Your task to perform on an android device: create a new album in the google photos Image 0: 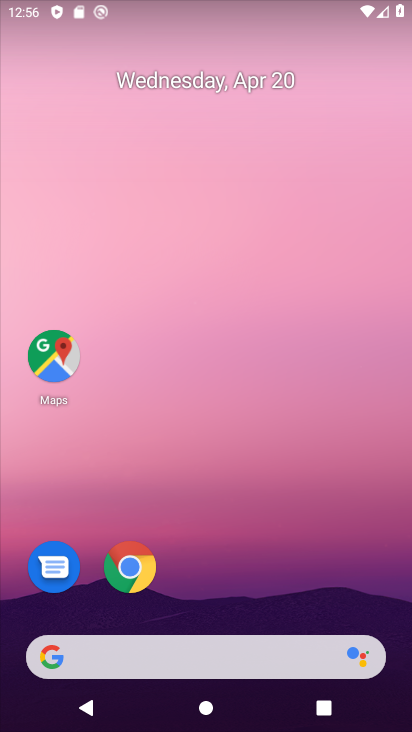
Step 0: drag from (310, 591) to (342, 116)
Your task to perform on an android device: create a new album in the google photos Image 1: 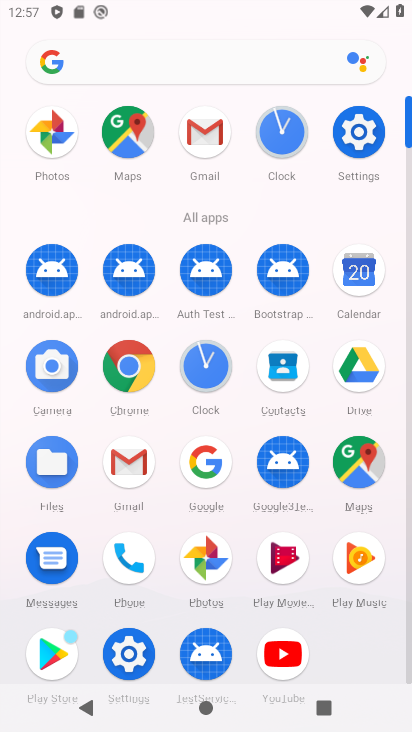
Step 1: click (208, 554)
Your task to perform on an android device: create a new album in the google photos Image 2: 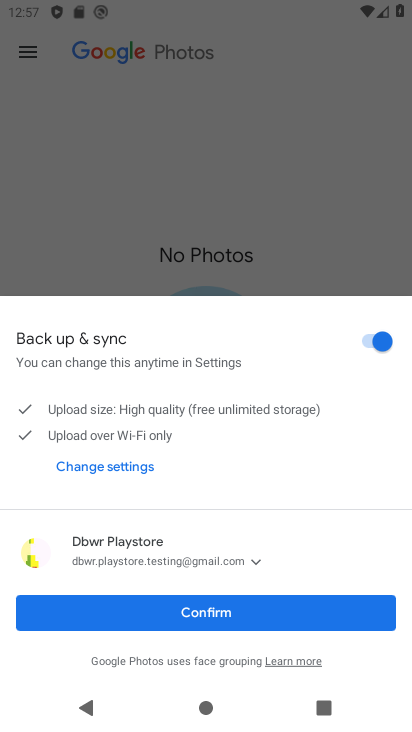
Step 2: click (241, 605)
Your task to perform on an android device: create a new album in the google photos Image 3: 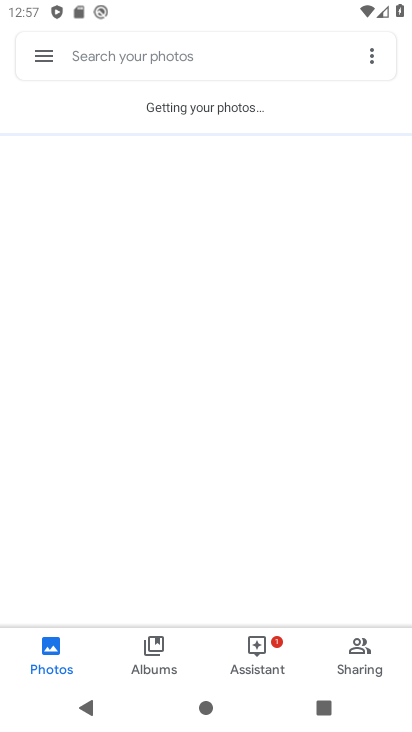
Step 3: click (49, 636)
Your task to perform on an android device: create a new album in the google photos Image 4: 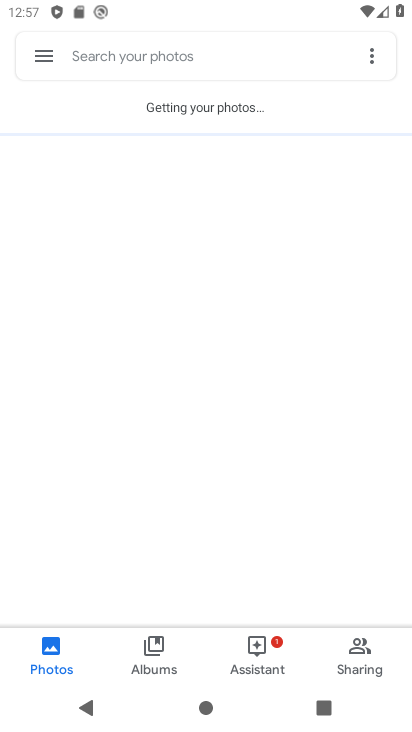
Step 4: click (54, 184)
Your task to perform on an android device: create a new album in the google photos Image 5: 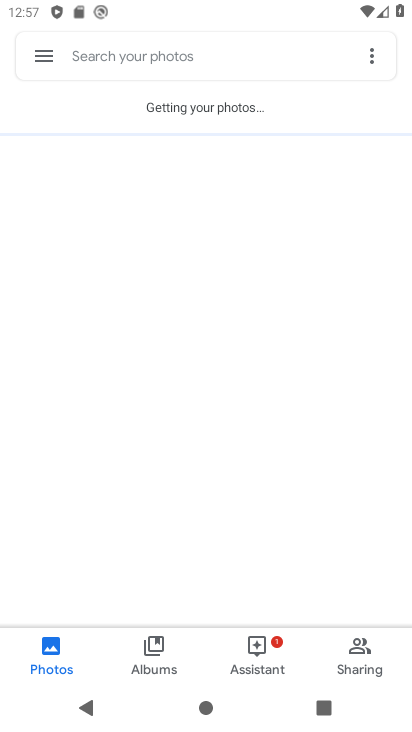
Step 5: click (54, 184)
Your task to perform on an android device: create a new album in the google photos Image 6: 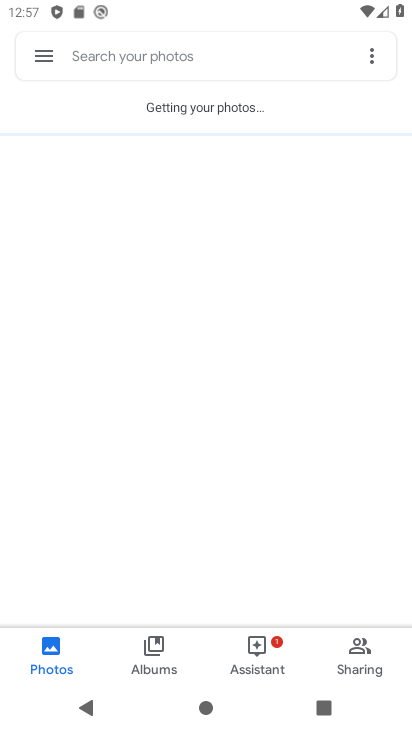
Step 6: click (180, 198)
Your task to perform on an android device: create a new album in the google photos Image 7: 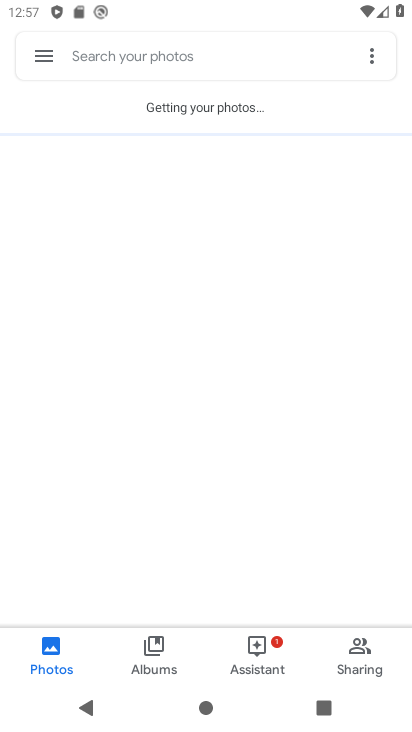
Step 7: task complete